Your task to perform on an android device: change timer sound Image 0: 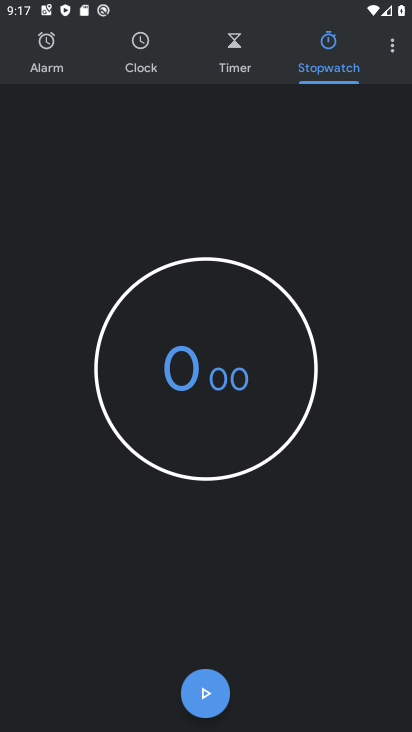
Step 0: click (391, 49)
Your task to perform on an android device: change timer sound Image 1: 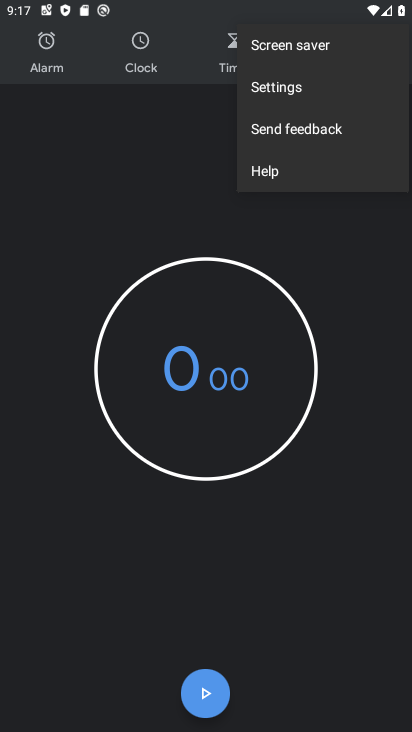
Step 1: click (284, 79)
Your task to perform on an android device: change timer sound Image 2: 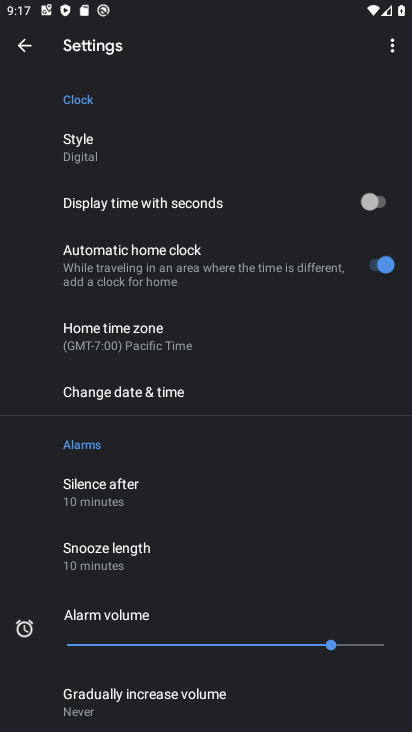
Step 2: drag from (245, 613) to (193, 146)
Your task to perform on an android device: change timer sound Image 3: 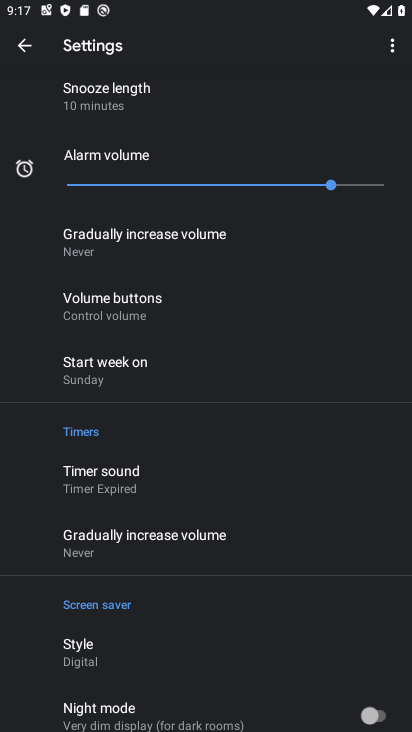
Step 3: click (110, 486)
Your task to perform on an android device: change timer sound Image 4: 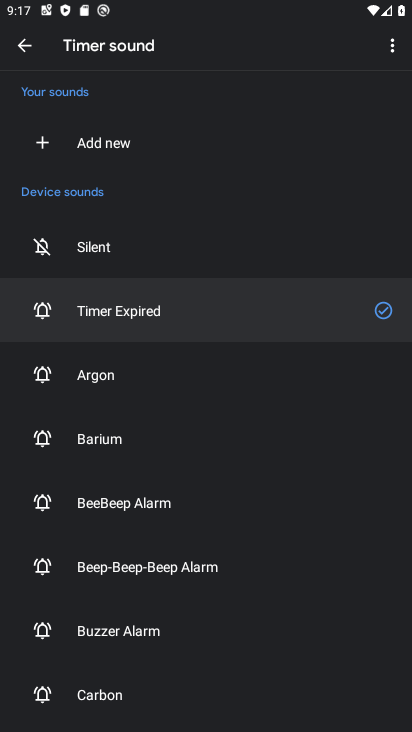
Step 4: click (101, 443)
Your task to perform on an android device: change timer sound Image 5: 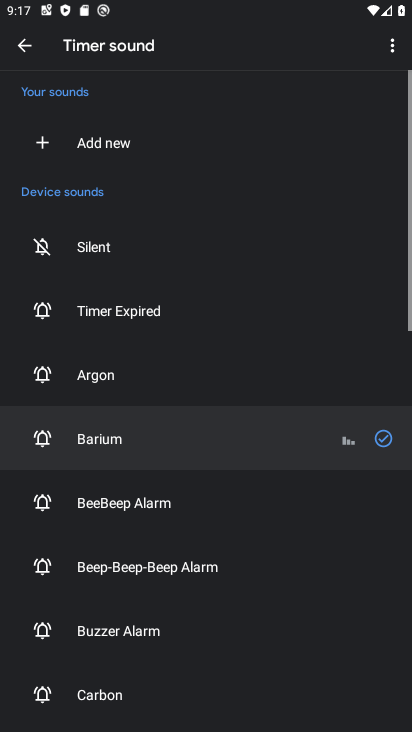
Step 5: click (390, 441)
Your task to perform on an android device: change timer sound Image 6: 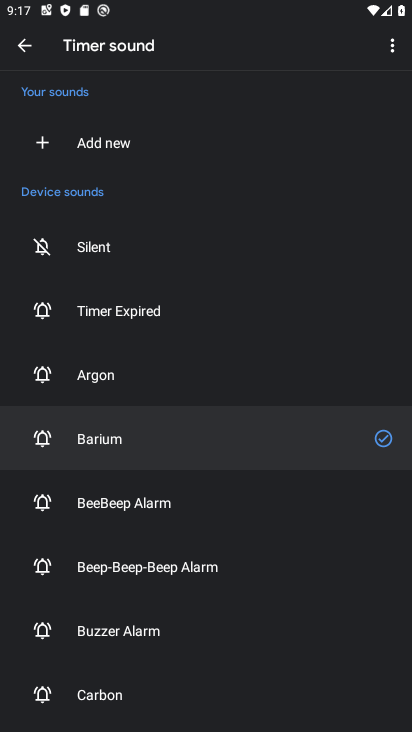
Step 6: task complete